Your task to perform on an android device: turn on javascript in the chrome app Image 0: 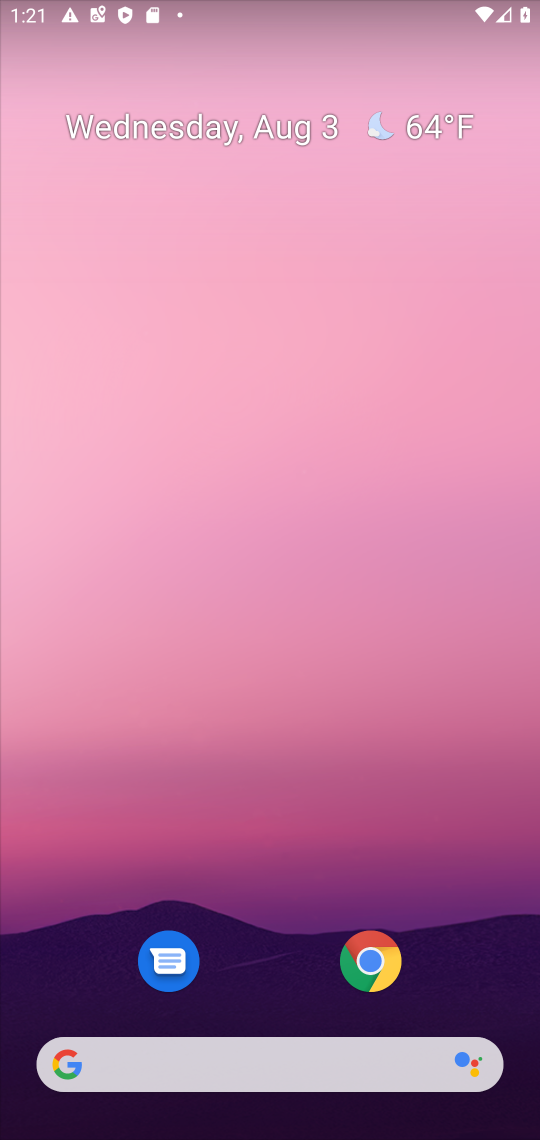
Step 0: click (380, 966)
Your task to perform on an android device: turn on javascript in the chrome app Image 1: 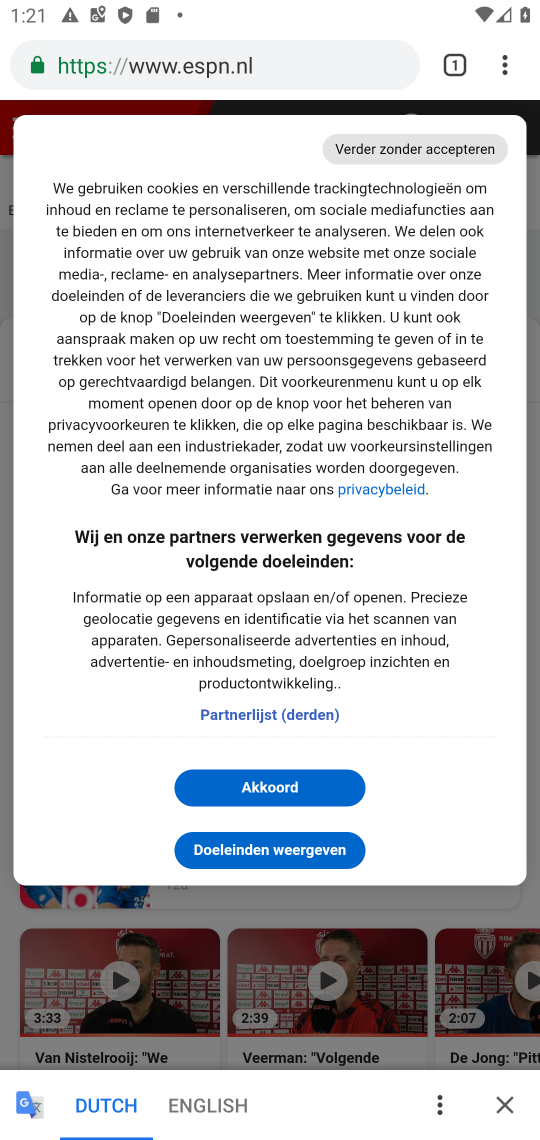
Step 1: drag from (505, 63) to (287, 784)
Your task to perform on an android device: turn on javascript in the chrome app Image 2: 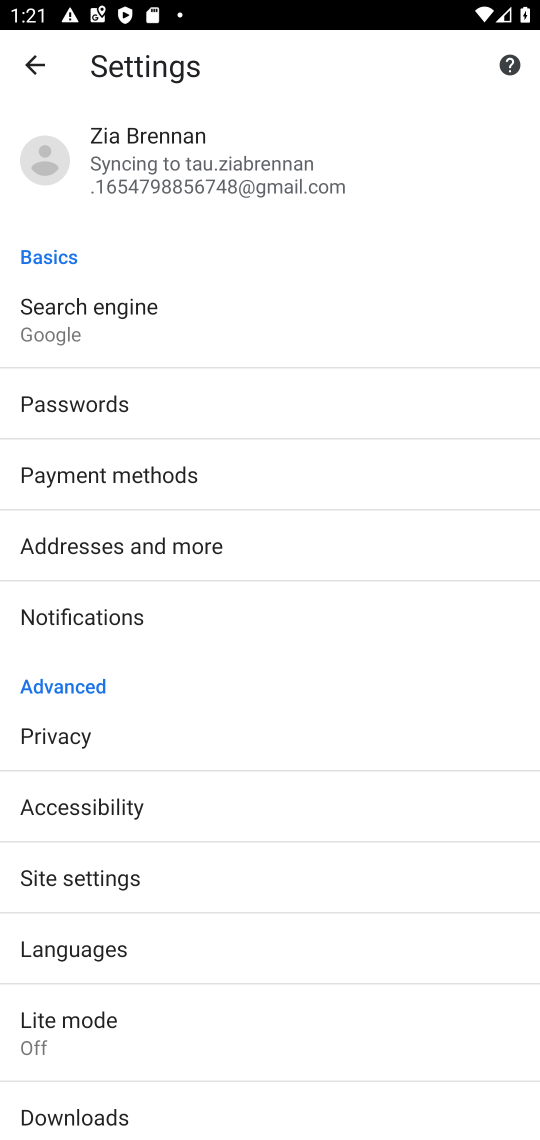
Step 2: click (96, 874)
Your task to perform on an android device: turn on javascript in the chrome app Image 3: 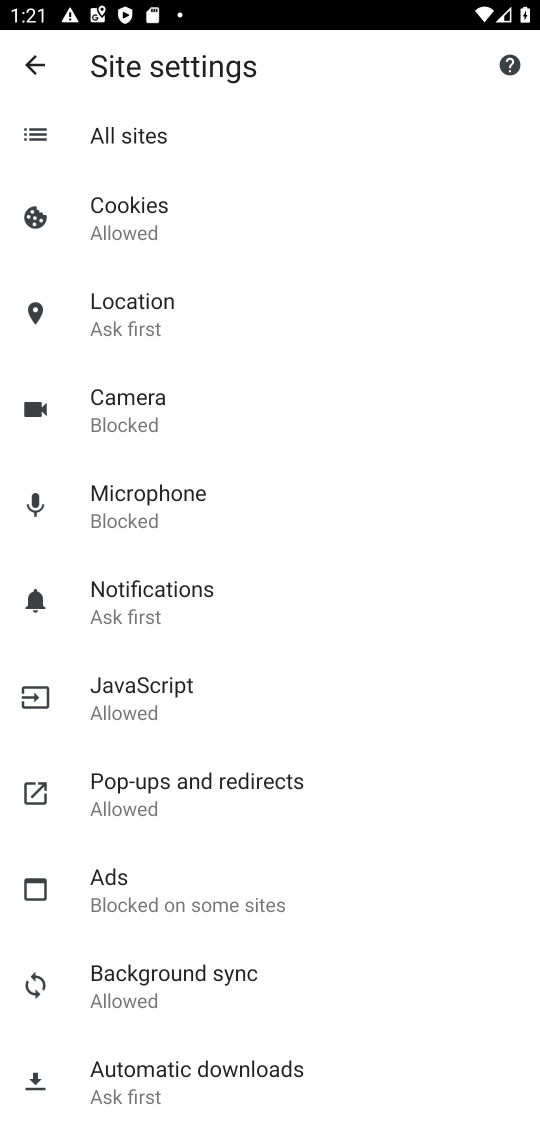
Step 3: click (126, 701)
Your task to perform on an android device: turn on javascript in the chrome app Image 4: 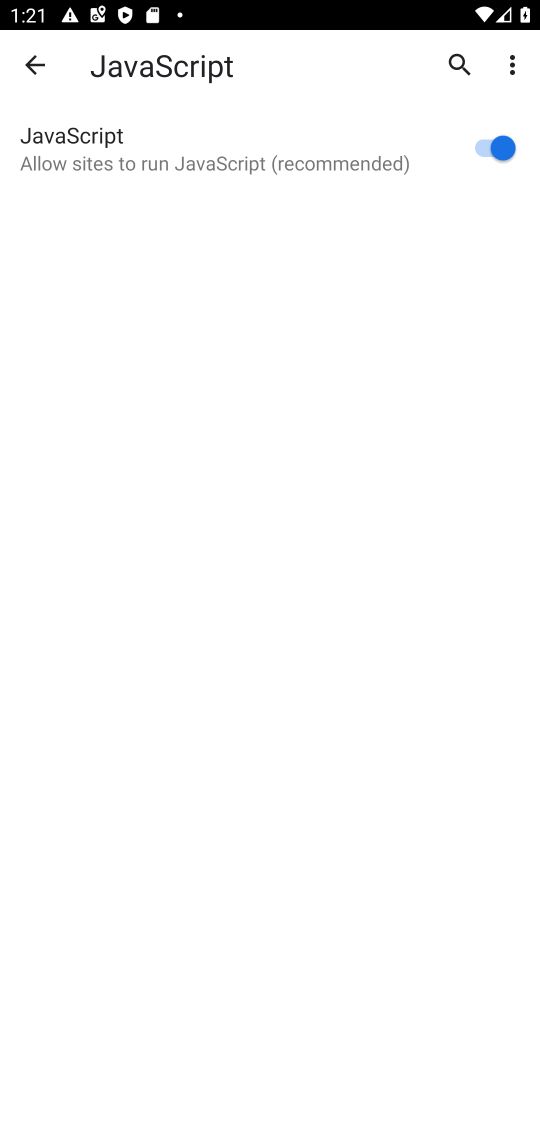
Step 4: task complete